Your task to perform on an android device: change the upload size in google photos Image 0: 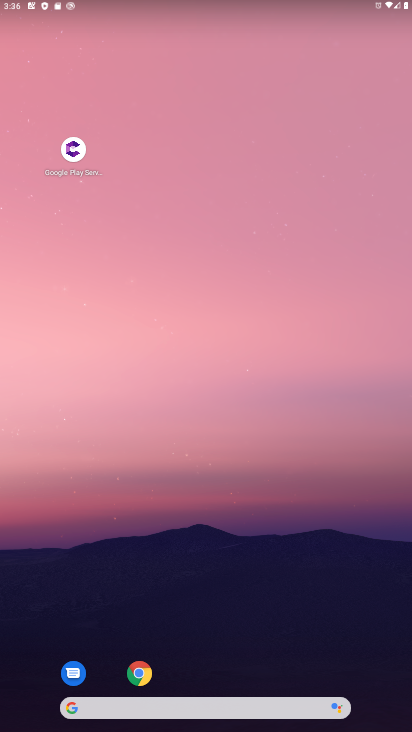
Step 0: drag from (212, 649) to (193, 88)
Your task to perform on an android device: change the upload size in google photos Image 1: 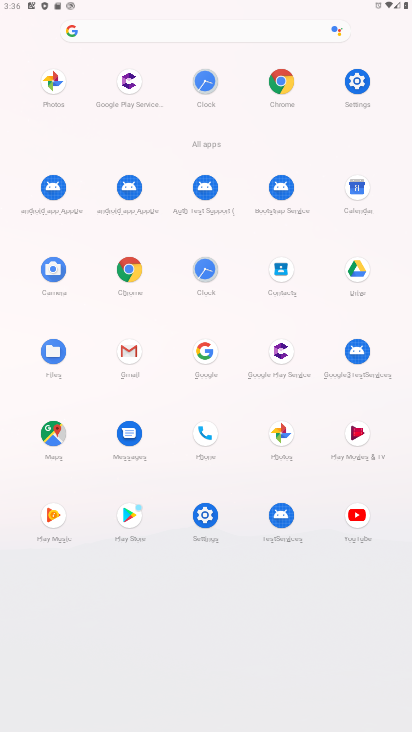
Step 1: click (50, 86)
Your task to perform on an android device: change the upload size in google photos Image 2: 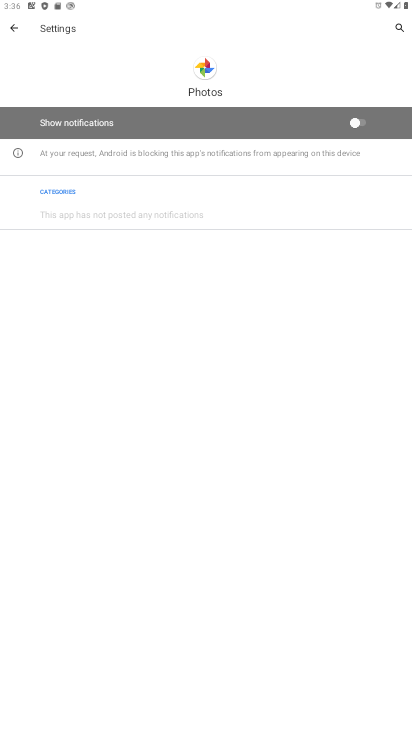
Step 2: press back button
Your task to perform on an android device: change the upload size in google photos Image 3: 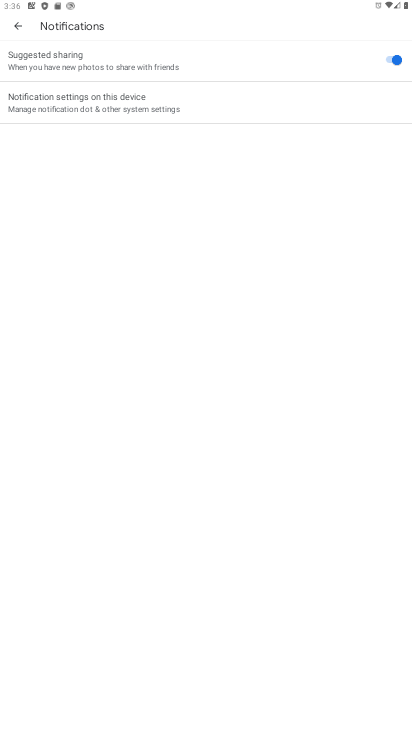
Step 3: press back button
Your task to perform on an android device: change the upload size in google photos Image 4: 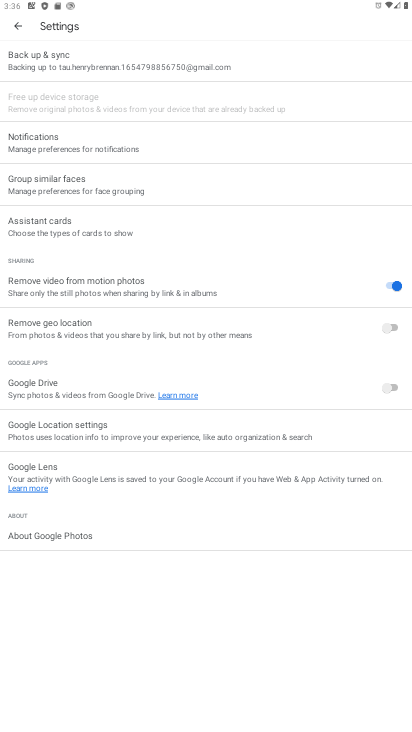
Step 4: click (130, 65)
Your task to perform on an android device: change the upload size in google photos Image 5: 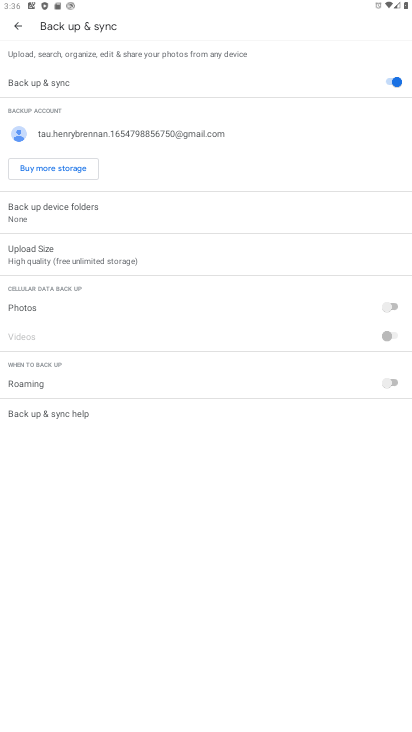
Step 5: click (70, 258)
Your task to perform on an android device: change the upload size in google photos Image 6: 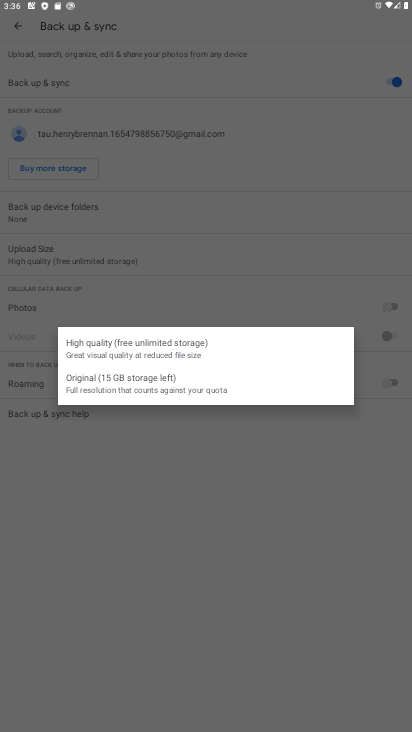
Step 6: click (99, 385)
Your task to perform on an android device: change the upload size in google photos Image 7: 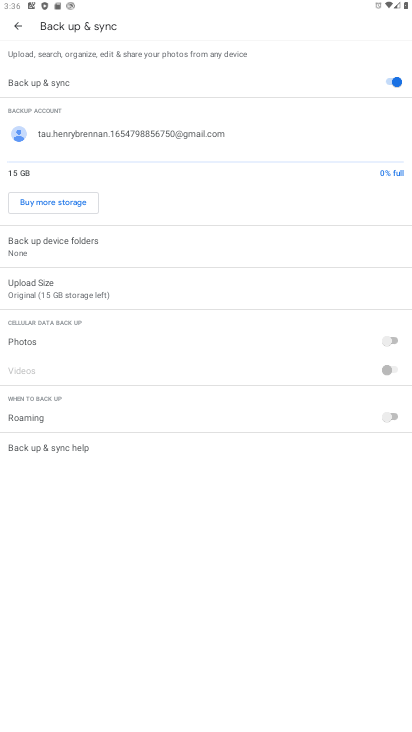
Step 7: task complete